Your task to perform on an android device: Open Google Chrome and click the shortcut for Amazon.com Image 0: 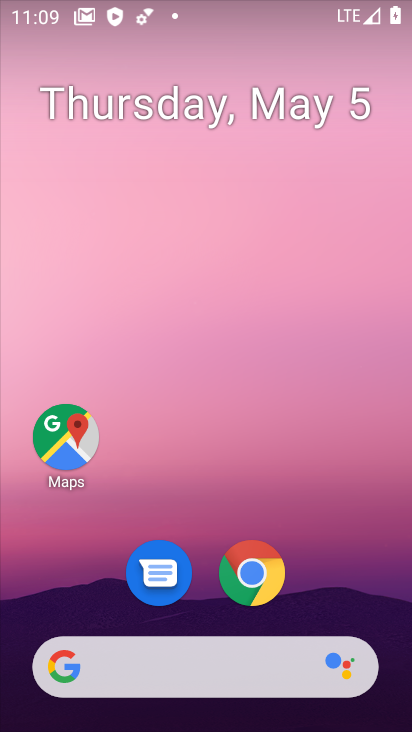
Step 0: click (252, 571)
Your task to perform on an android device: Open Google Chrome and click the shortcut for Amazon.com Image 1: 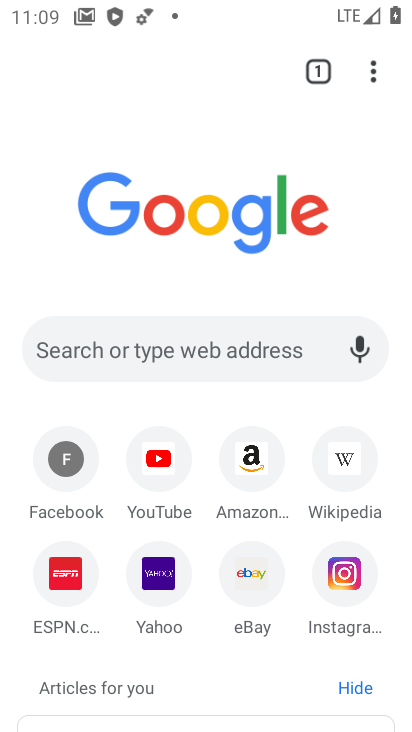
Step 1: click (224, 345)
Your task to perform on an android device: Open Google Chrome and click the shortcut for Amazon.com Image 2: 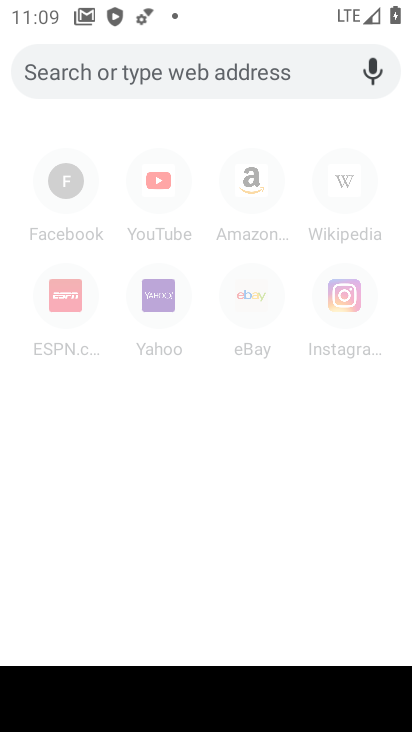
Step 2: click (151, 70)
Your task to perform on an android device: Open Google Chrome and click the shortcut for Amazon.com Image 3: 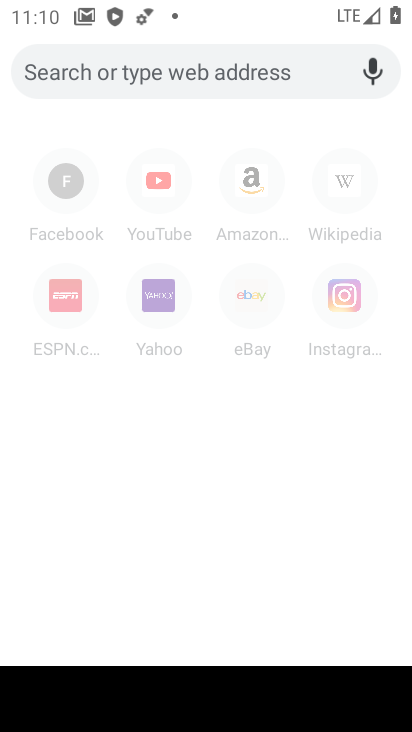
Step 3: type "Amazon.com"
Your task to perform on an android device: Open Google Chrome and click the shortcut for Amazon.com Image 4: 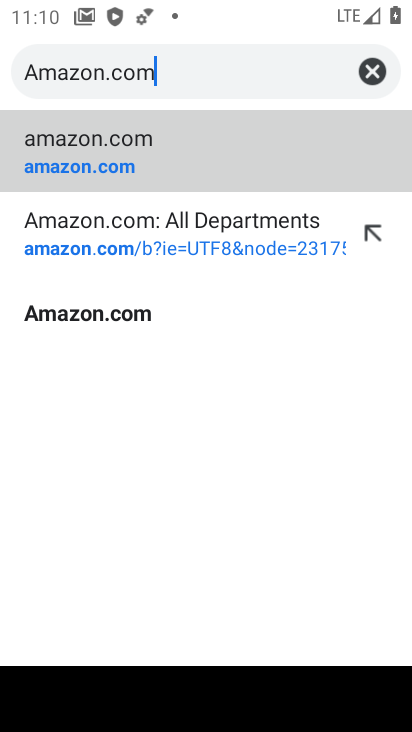
Step 4: type ""
Your task to perform on an android device: Open Google Chrome and click the shortcut for Amazon.com Image 5: 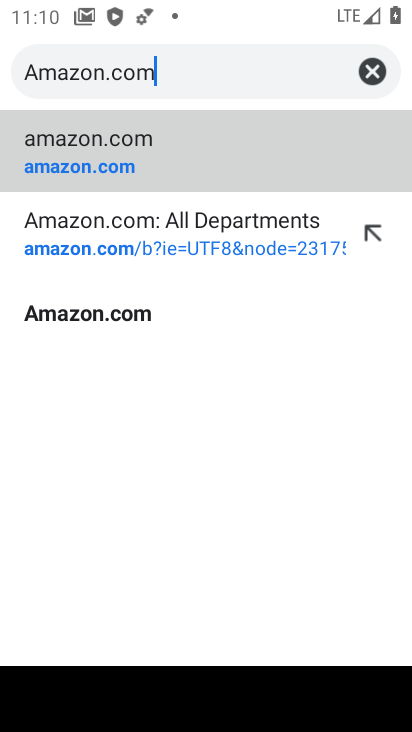
Step 5: click (95, 307)
Your task to perform on an android device: Open Google Chrome and click the shortcut for Amazon.com Image 6: 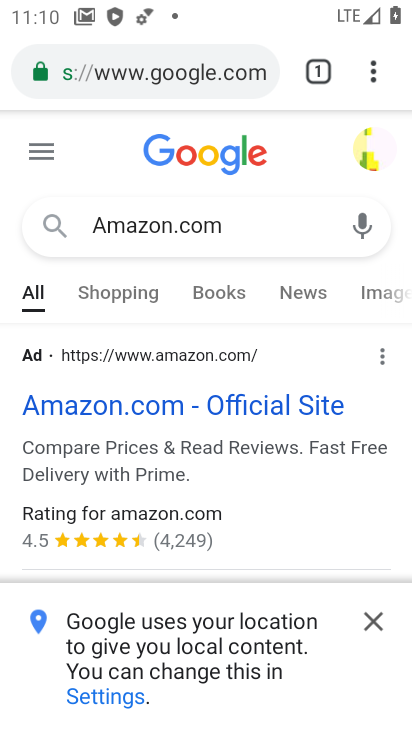
Step 6: click (149, 410)
Your task to perform on an android device: Open Google Chrome and click the shortcut for Amazon.com Image 7: 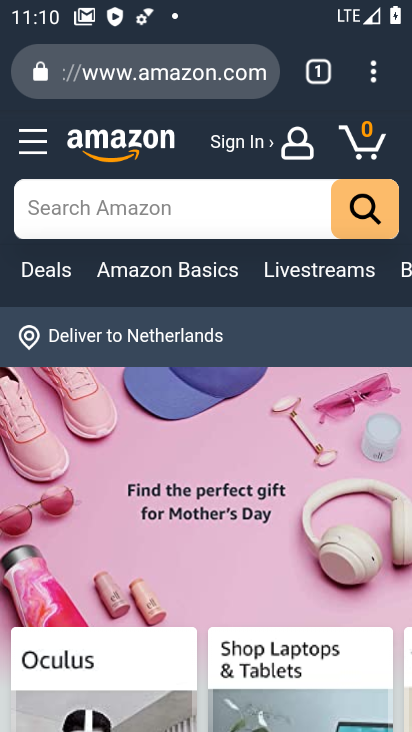
Step 7: click (372, 77)
Your task to perform on an android device: Open Google Chrome and click the shortcut for Amazon.com Image 8: 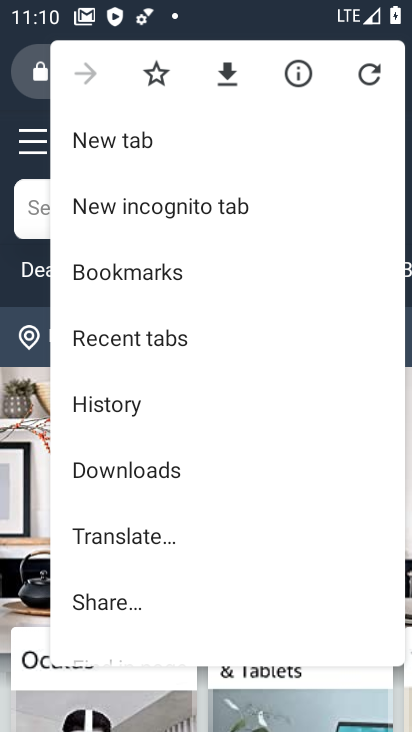
Step 8: drag from (195, 552) to (231, 408)
Your task to perform on an android device: Open Google Chrome and click the shortcut for Amazon.com Image 9: 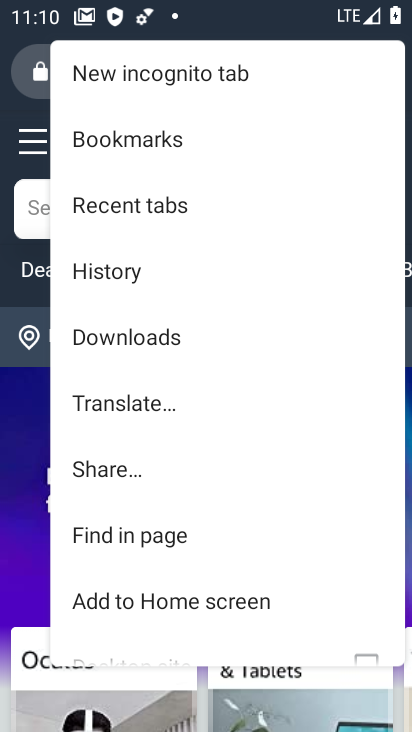
Step 9: drag from (208, 530) to (216, 438)
Your task to perform on an android device: Open Google Chrome and click the shortcut for Amazon.com Image 10: 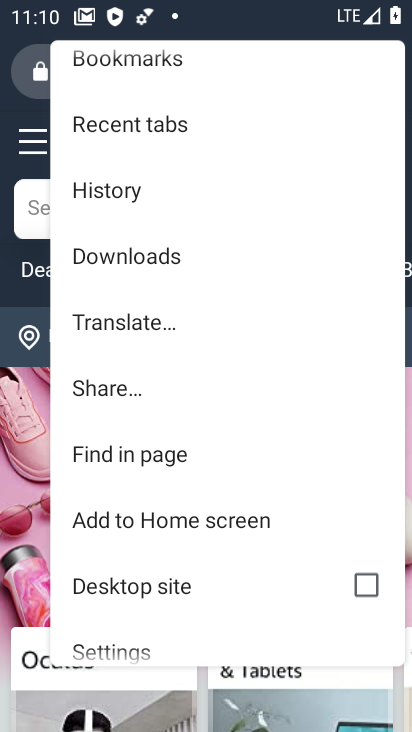
Step 10: click (206, 511)
Your task to perform on an android device: Open Google Chrome and click the shortcut for Amazon.com Image 11: 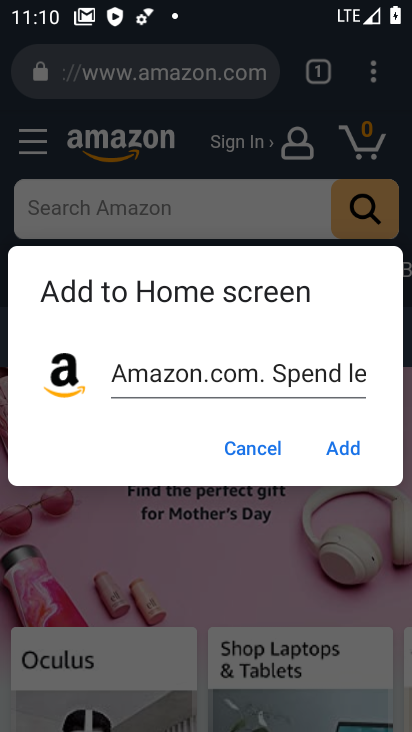
Step 11: click (351, 458)
Your task to perform on an android device: Open Google Chrome and click the shortcut for Amazon.com Image 12: 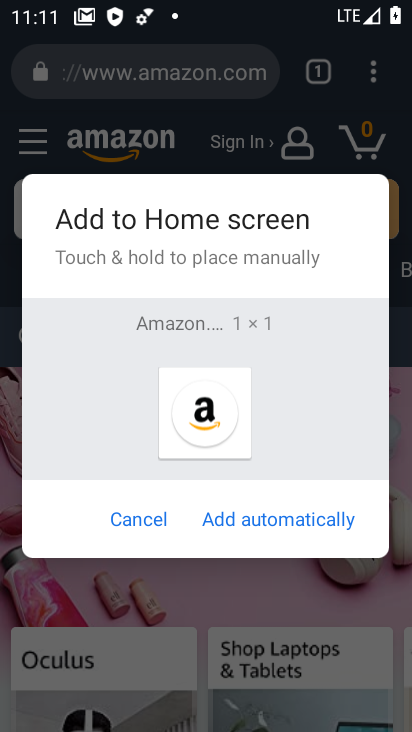
Step 12: click (280, 527)
Your task to perform on an android device: Open Google Chrome and click the shortcut for Amazon.com Image 13: 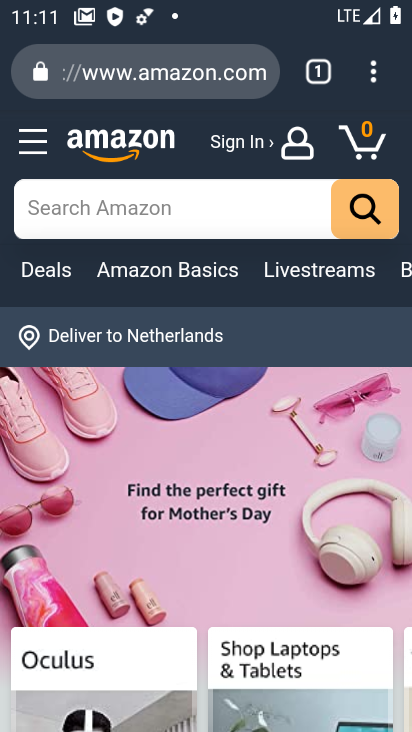
Step 13: task complete